Your task to perform on an android device: refresh tabs in the chrome app Image 0: 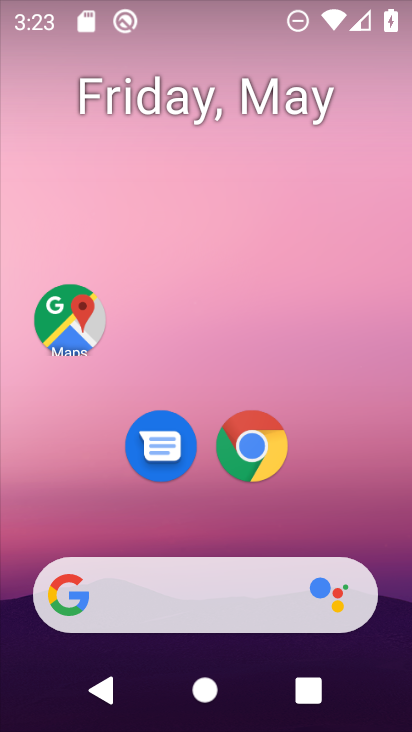
Step 0: click (257, 453)
Your task to perform on an android device: refresh tabs in the chrome app Image 1: 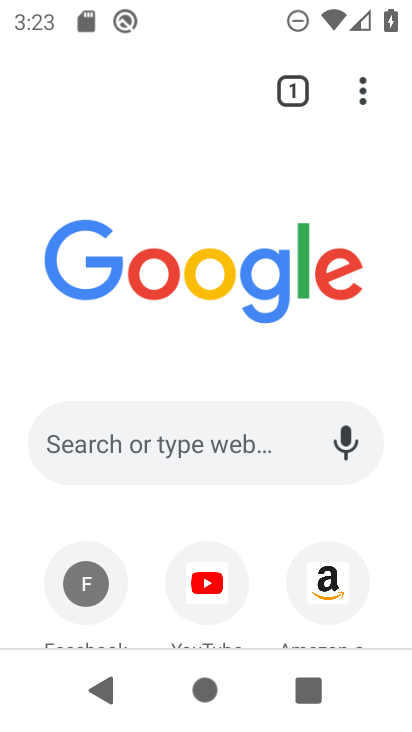
Step 1: task complete